Your task to perform on an android device: turn off notifications settings in the gmail app Image 0: 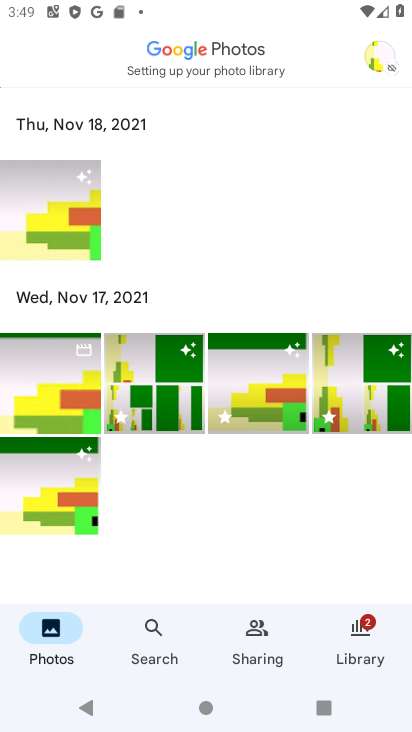
Step 0: press back button
Your task to perform on an android device: turn off notifications settings in the gmail app Image 1: 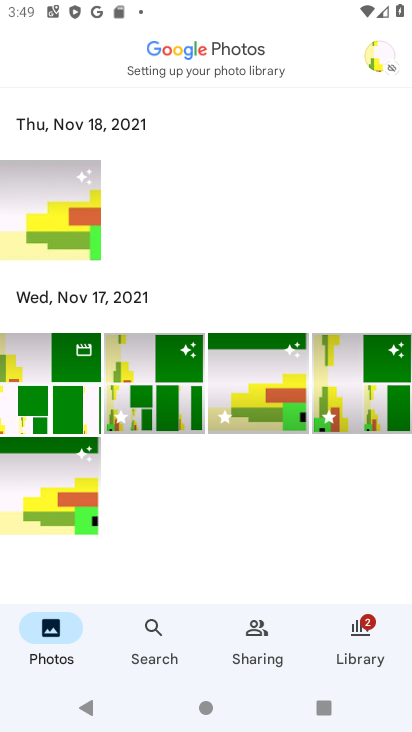
Step 1: press home button
Your task to perform on an android device: turn off notifications settings in the gmail app Image 2: 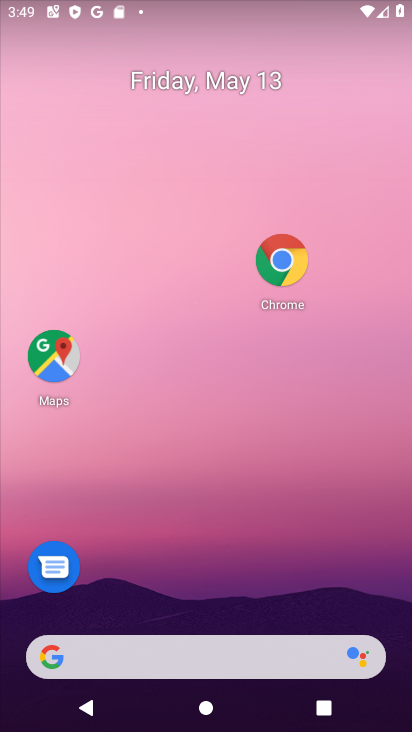
Step 2: drag from (252, 407) to (213, 212)
Your task to perform on an android device: turn off notifications settings in the gmail app Image 3: 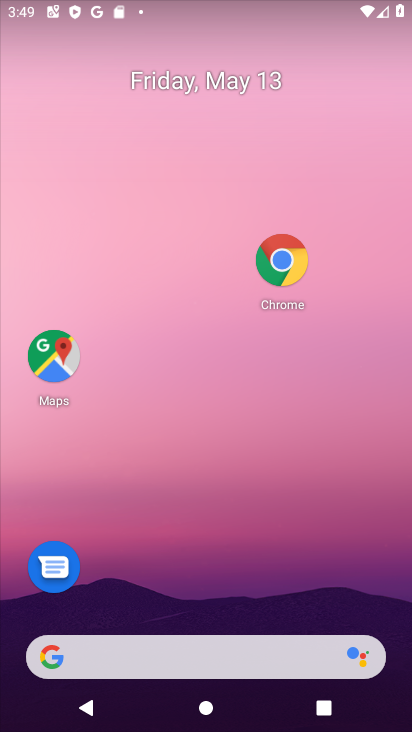
Step 3: drag from (307, 599) to (271, 200)
Your task to perform on an android device: turn off notifications settings in the gmail app Image 4: 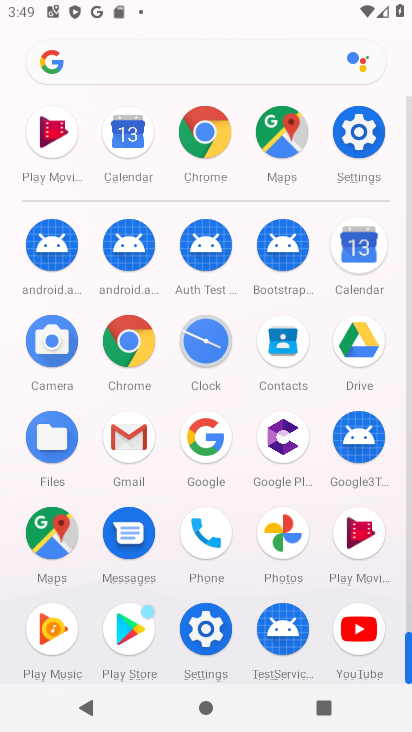
Step 4: click (131, 427)
Your task to perform on an android device: turn off notifications settings in the gmail app Image 5: 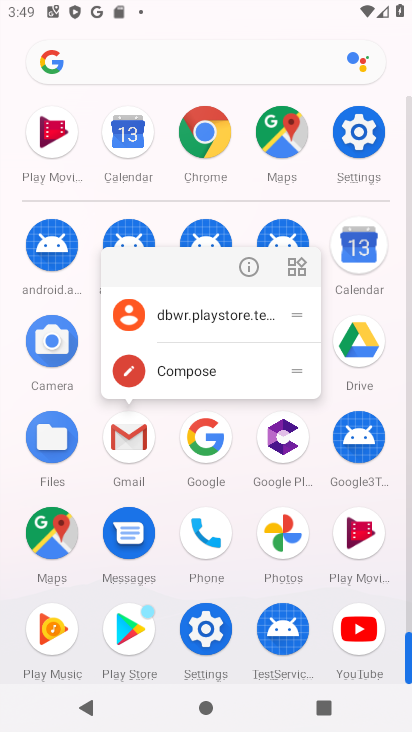
Step 5: click (139, 440)
Your task to perform on an android device: turn off notifications settings in the gmail app Image 6: 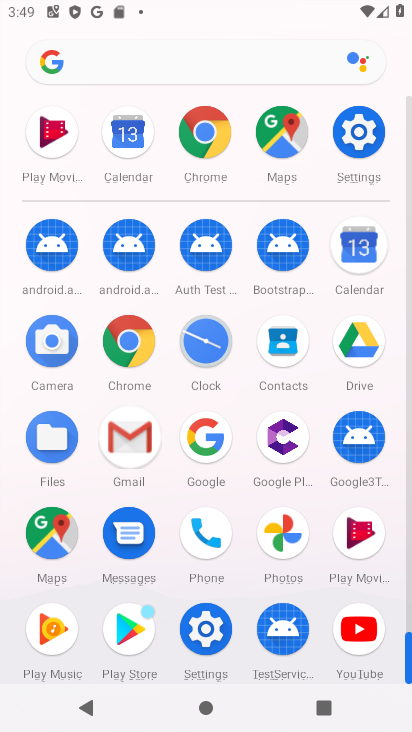
Step 6: click (135, 437)
Your task to perform on an android device: turn off notifications settings in the gmail app Image 7: 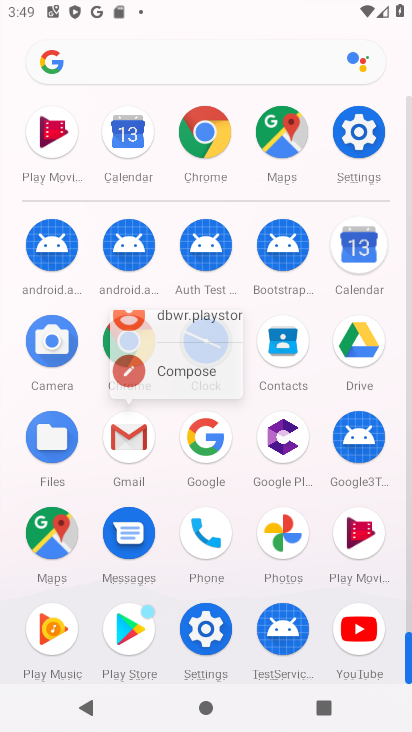
Step 7: click (132, 423)
Your task to perform on an android device: turn off notifications settings in the gmail app Image 8: 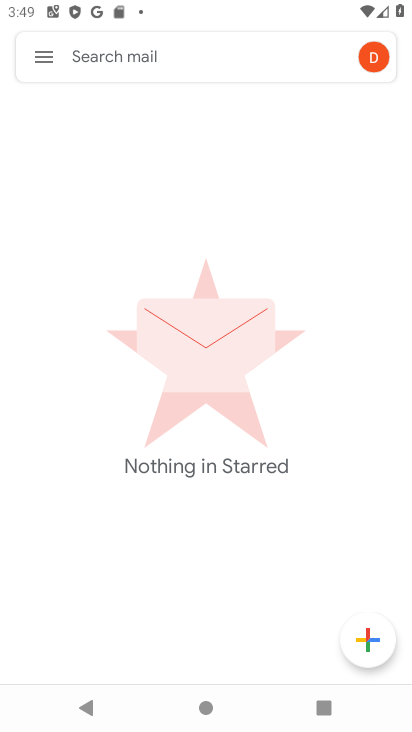
Step 8: click (59, 60)
Your task to perform on an android device: turn off notifications settings in the gmail app Image 9: 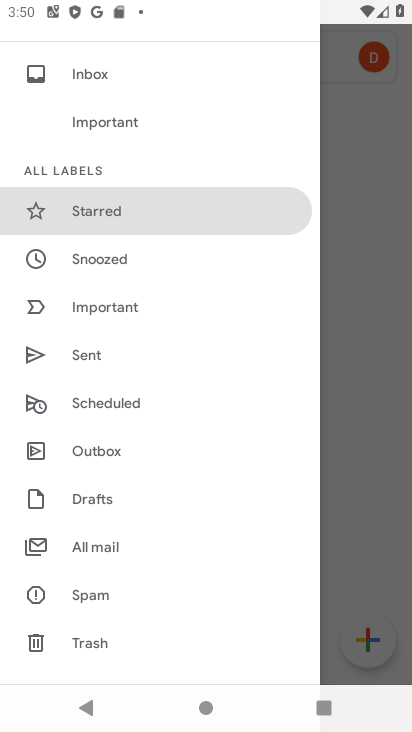
Step 9: drag from (124, 460) to (131, 90)
Your task to perform on an android device: turn off notifications settings in the gmail app Image 10: 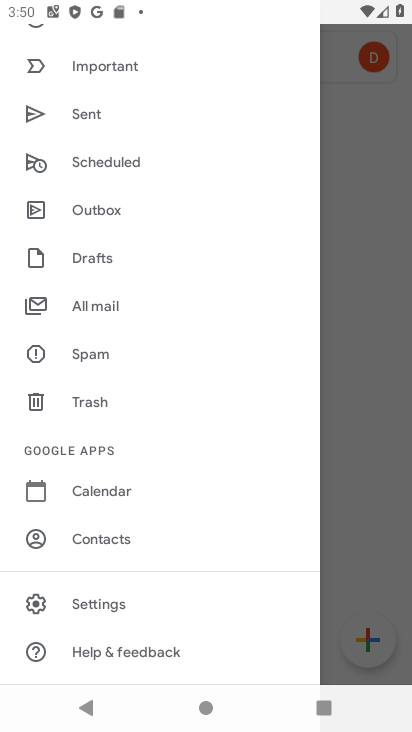
Step 10: click (96, 599)
Your task to perform on an android device: turn off notifications settings in the gmail app Image 11: 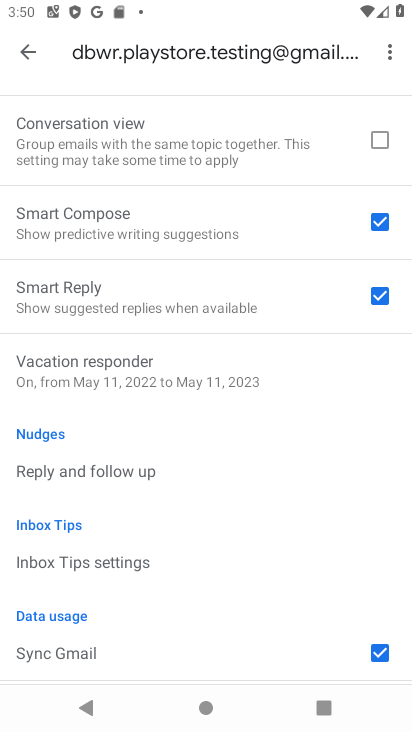
Step 11: drag from (127, 321) to (142, 588)
Your task to perform on an android device: turn off notifications settings in the gmail app Image 12: 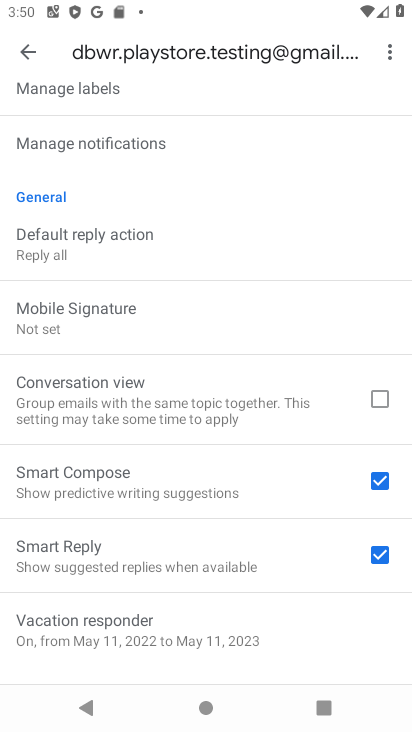
Step 12: drag from (103, 213) to (114, 505)
Your task to perform on an android device: turn off notifications settings in the gmail app Image 13: 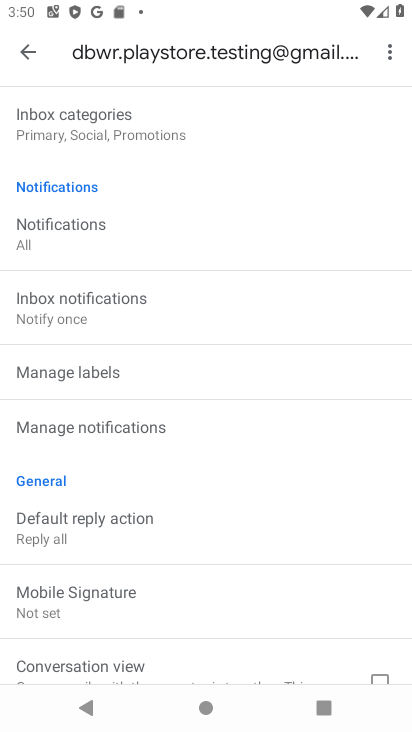
Step 13: click (70, 230)
Your task to perform on an android device: turn off notifications settings in the gmail app Image 14: 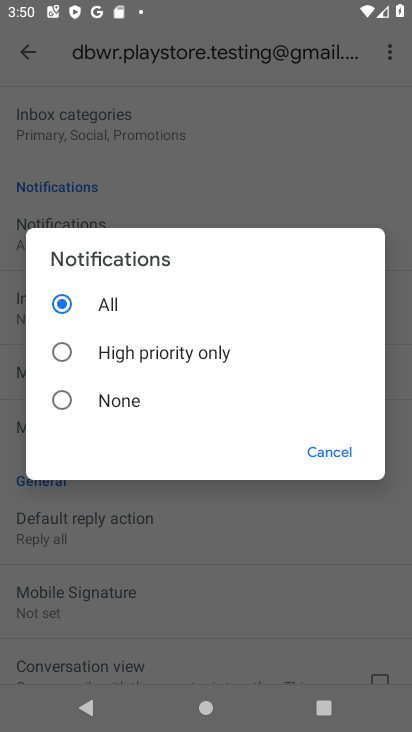
Step 14: click (54, 404)
Your task to perform on an android device: turn off notifications settings in the gmail app Image 15: 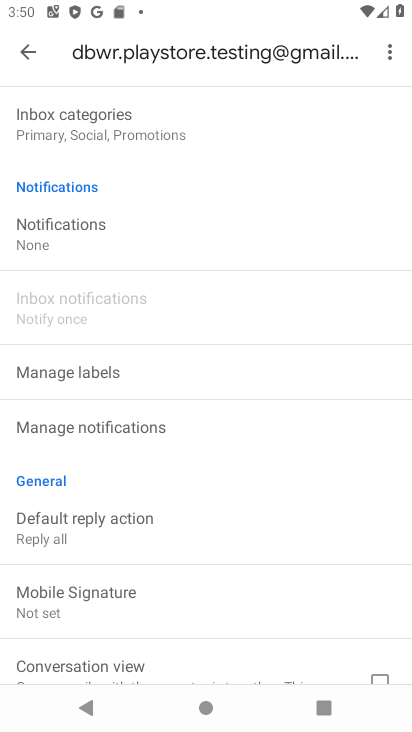
Step 15: task complete